Your task to perform on an android device: check battery use Image 0: 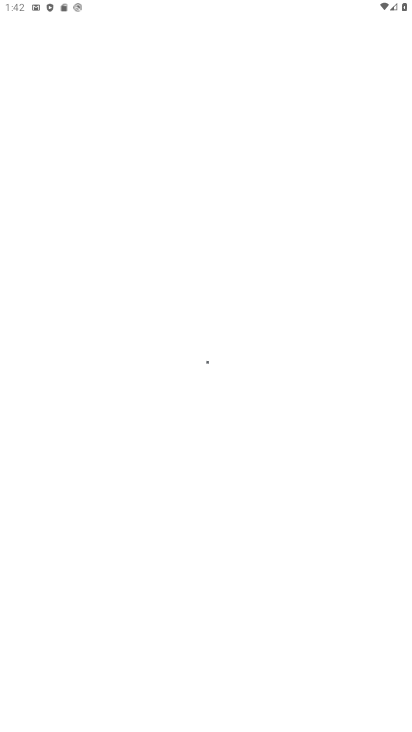
Step 0: press home button
Your task to perform on an android device: check battery use Image 1: 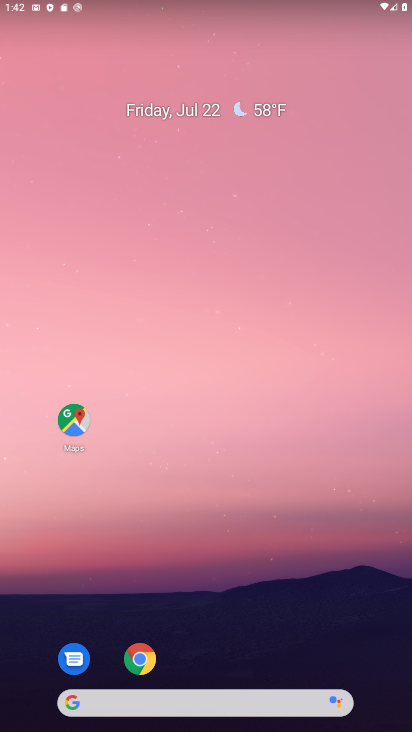
Step 1: drag from (222, 675) to (211, 135)
Your task to perform on an android device: check battery use Image 2: 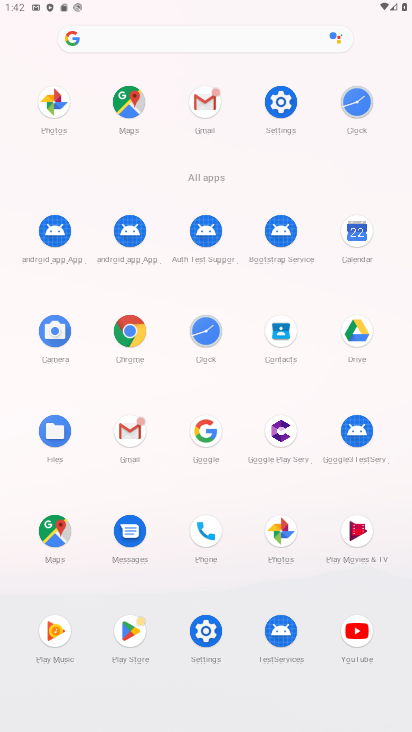
Step 2: click (270, 99)
Your task to perform on an android device: check battery use Image 3: 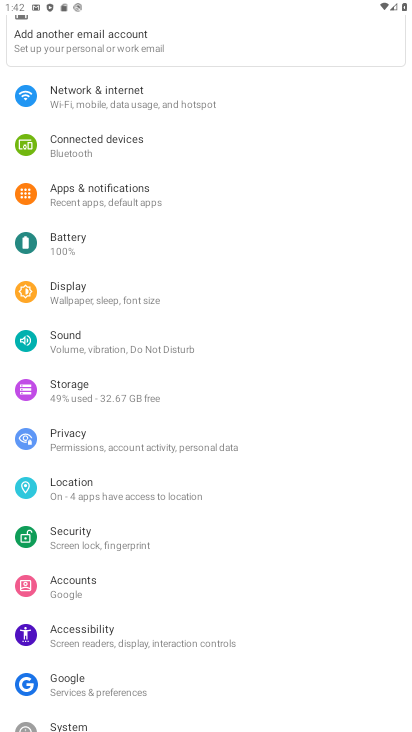
Step 3: drag from (106, 671) to (106, 196)
Your task to perform on an android device: check battery use Image 4: 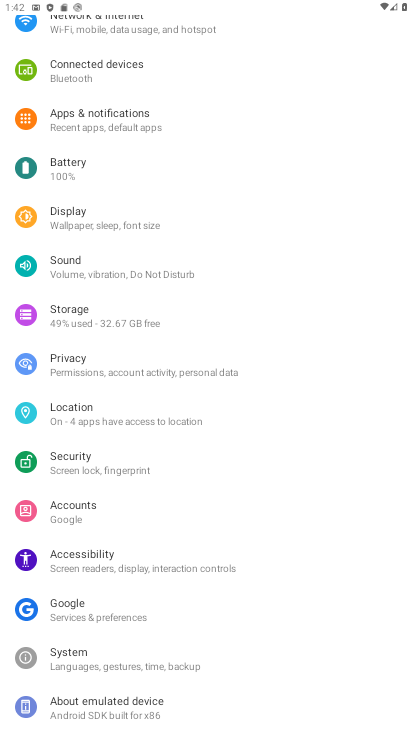
Step 4: click (83, 169)
Your task to perform on an android device: check battery use Image 5: 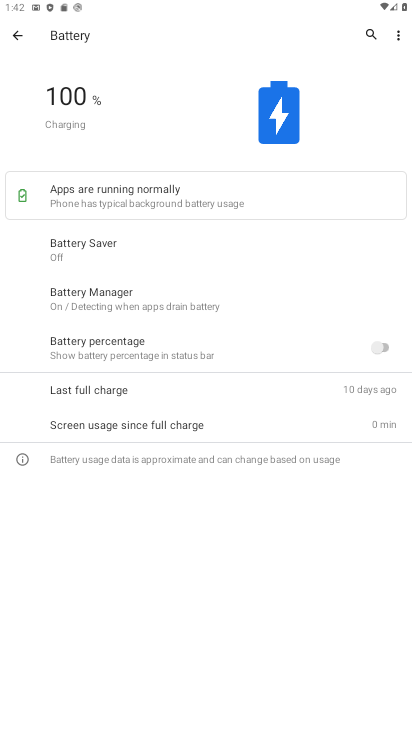
Step 5: task complete